Your task to perform on an android device: turn on javascript in the chrome app Image 0: 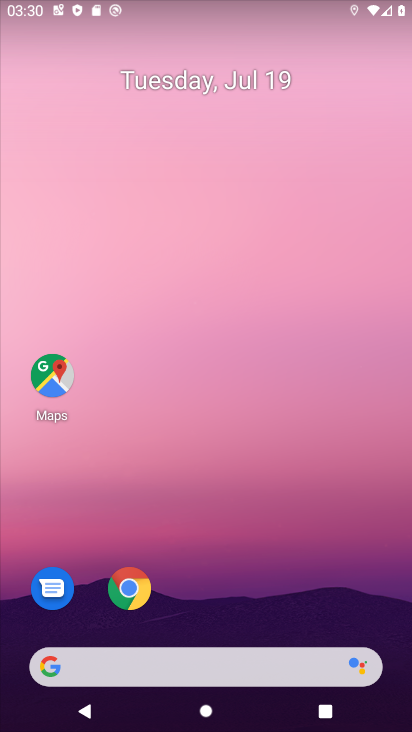
Step 0: click (129, 582)
Your task to perform on an android device: turn on javascript in the chrome app Image 1: 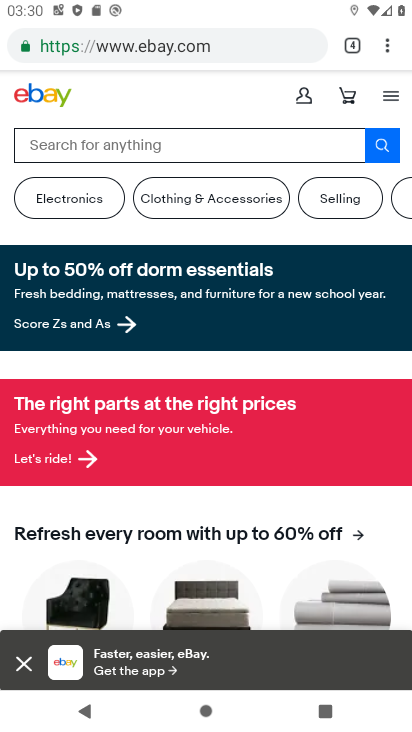
Step 1: click (387, 37)
Your task to perform on an android device: turn on javascript in the chrome app Image 2: 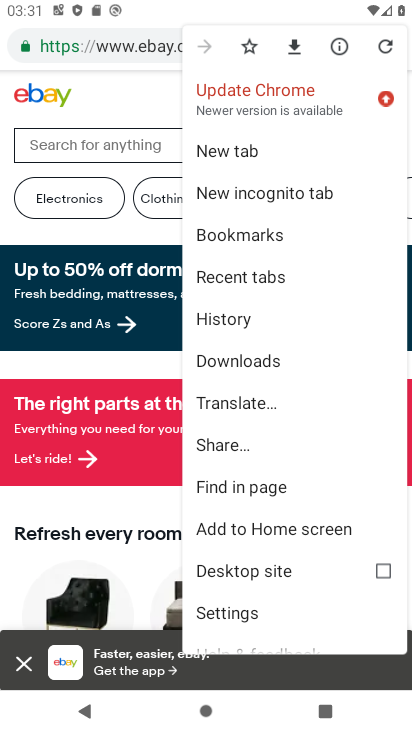
Step 2: click (223, 610)
Your task to perform on an android device: turn on javascript in the chrome app Image 3: 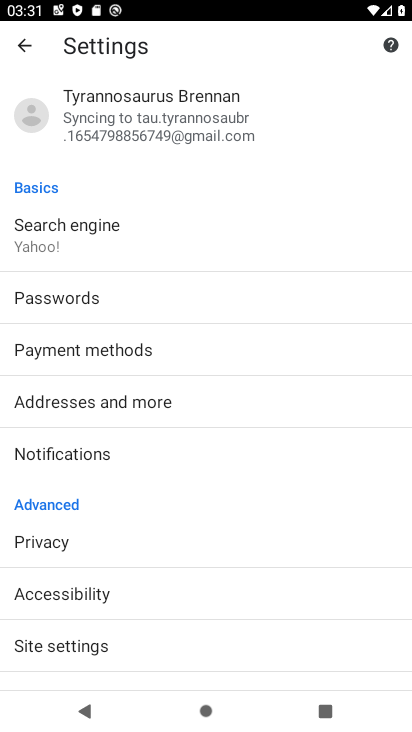
Step 3: drag from (201, 527) to (153, 223)
Your task to perform on an android device: turn on javascript in the chrome app Image 4: 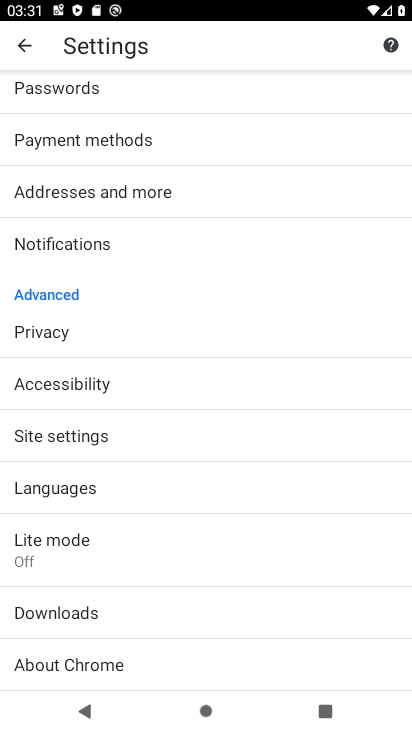
Step 4: click (66, 432)
Your task to perform on an android device: turn on javascript in the chrome app Image 5: 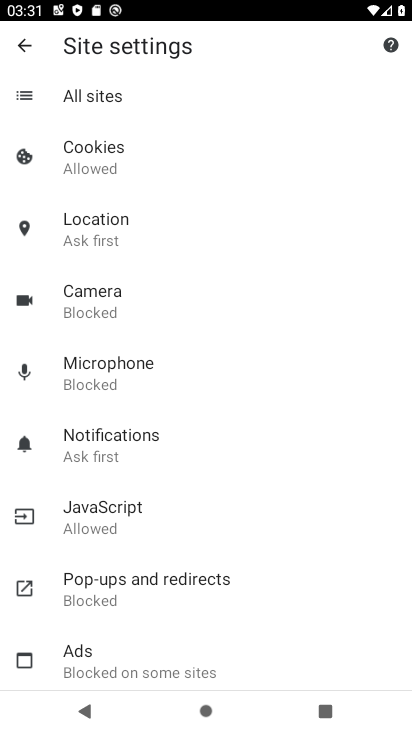
Step 5: click (117, 511)
Your task to perform on an android device: turn on javascript in the chrome app Image 6: 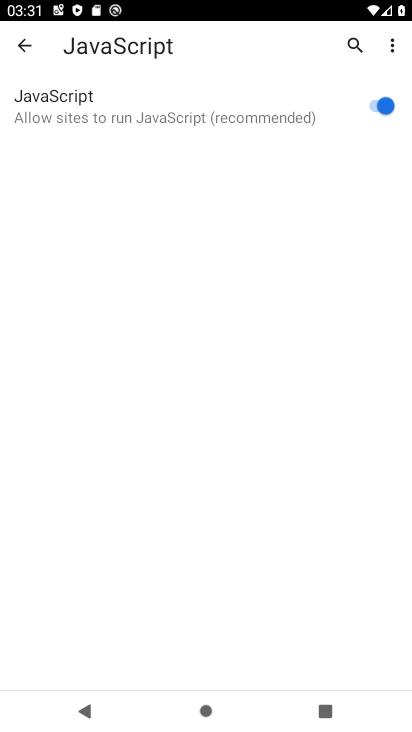
Step 6: task complete